Your task to perform on an android device: turn off javascript in the chrome app Image 0: 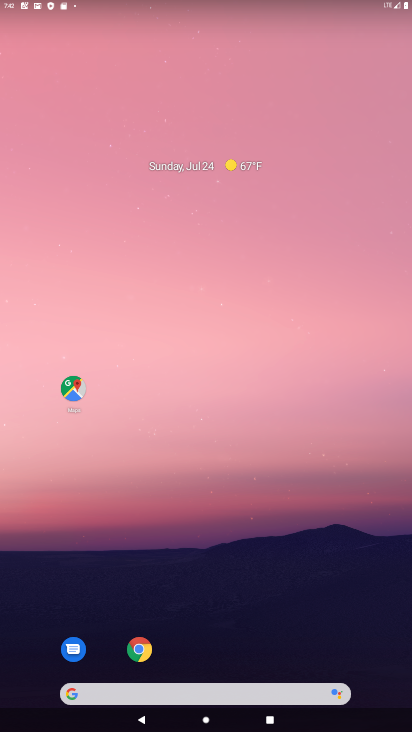
Step 0: click (140, 644)
Your task to perform on an android device: turn off javascript in the chrome app Image 1: 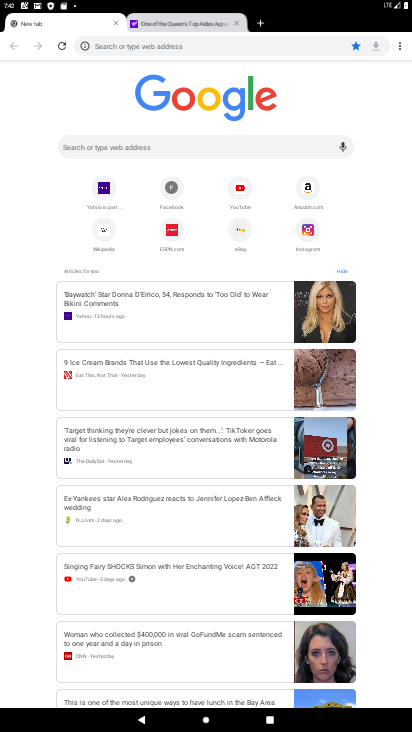
Step 1: click (403, 37)
Your task to perform on an android device: turn off javascript in the chrome app Image 2: 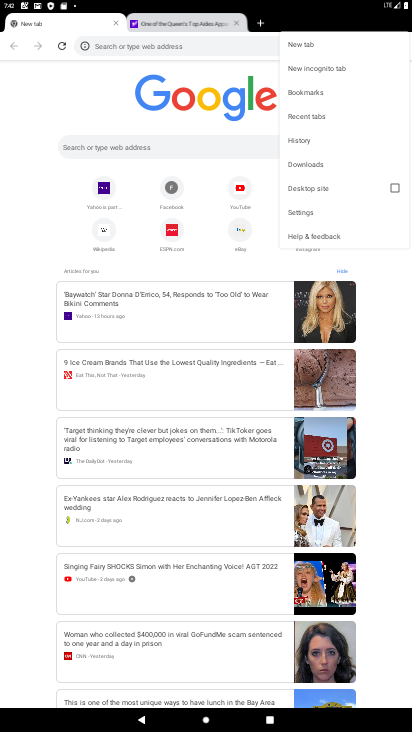
Step 2: click (290, 210)
Your task to perform on an android device: turn off javascript in the chrome app Image 3: 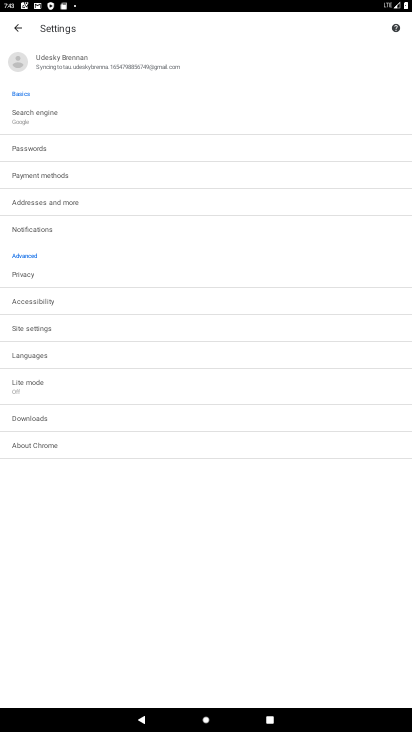
Step 3: click (44, 324)
Your task to perform on an android device: turn off javascript in the chrome app Image 4: 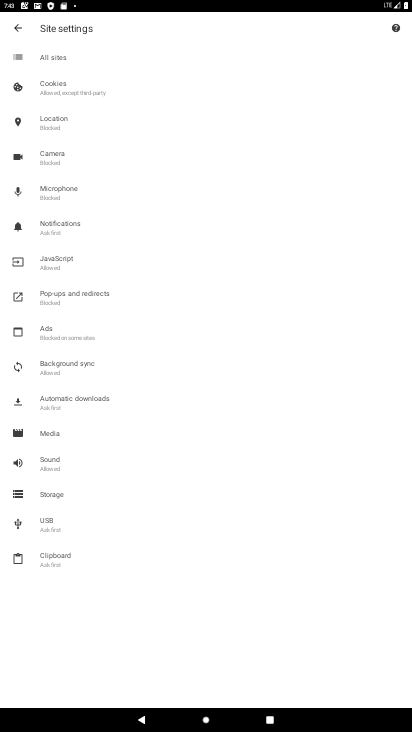
Step 4: click (53, 249)
Your task to perform on an android device: turn off javascript in the chrome app Image 5: 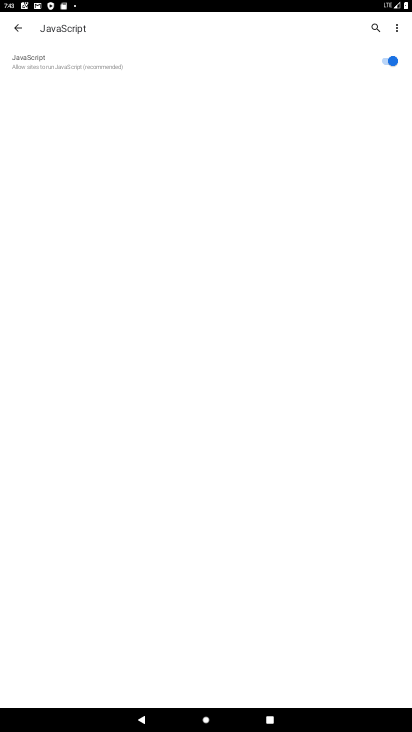
Step 5: click (388, 63)
Your task to perform on an android device: turn off javascript in the chrome app Image 6: 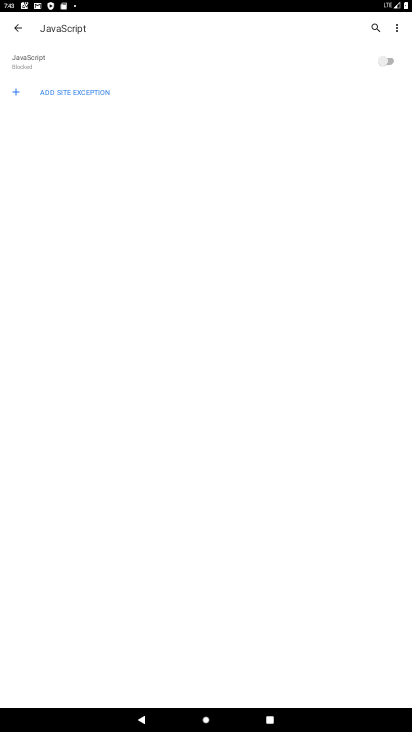
Step 6: task complete